Your task to perform on an android device: Open Google Maps Image 0: 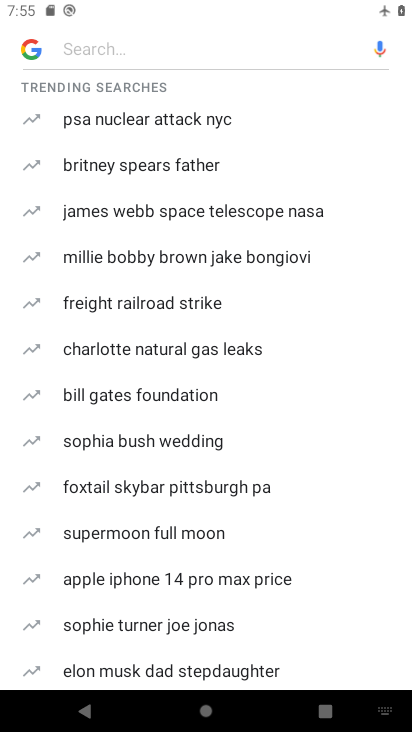
Step 0: press home button
Your task to perform on an android device: Open Google Maps Image 1: 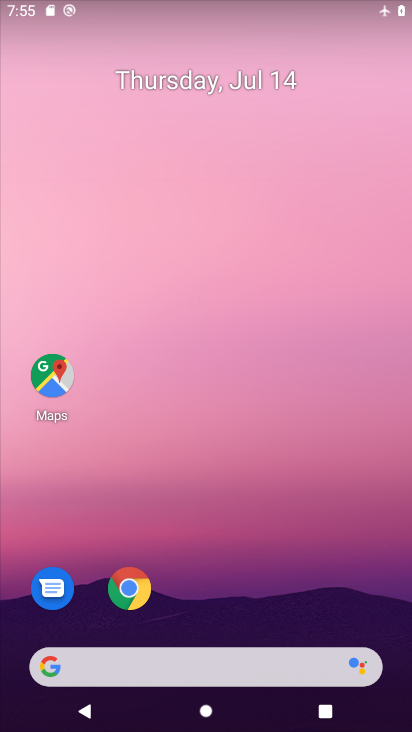
Step 1: drag from (197, 622) to (210, 21)
Your task to perform on an android device: Open Google Maps Image 2: 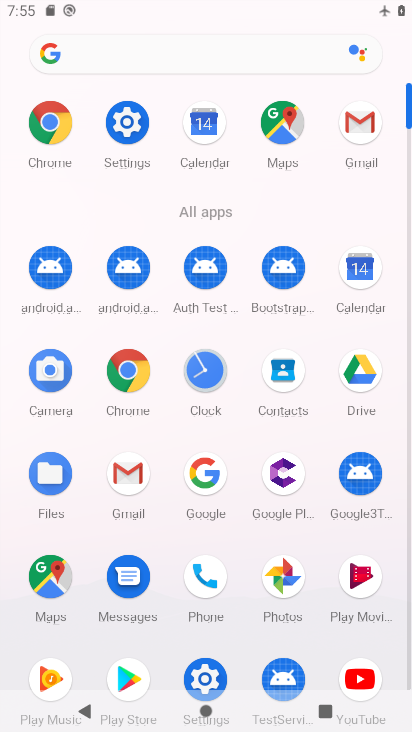
Step 2: click (40, 596)
Your task to perform on an android device: Open Google Maps Image 3: 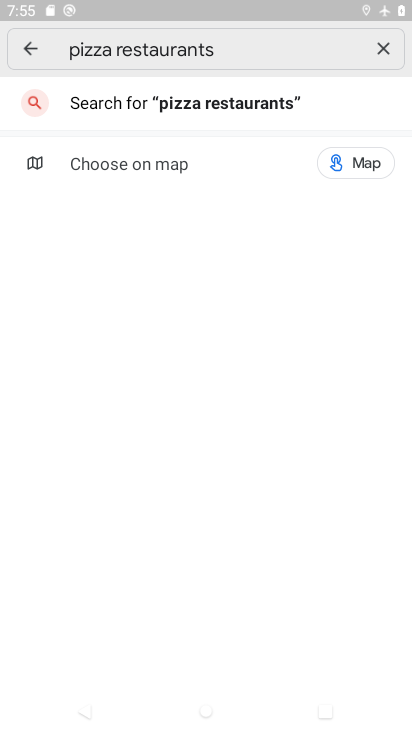
Step 3: click (38, 55)
Your task to perform on an android device: Open Google Maps Image 4: 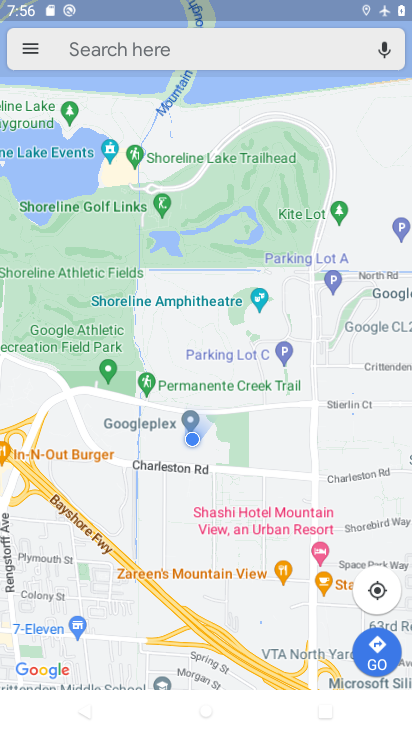
Step 4: task complete